Your task to perform on an android device: set an alarm Image 0: 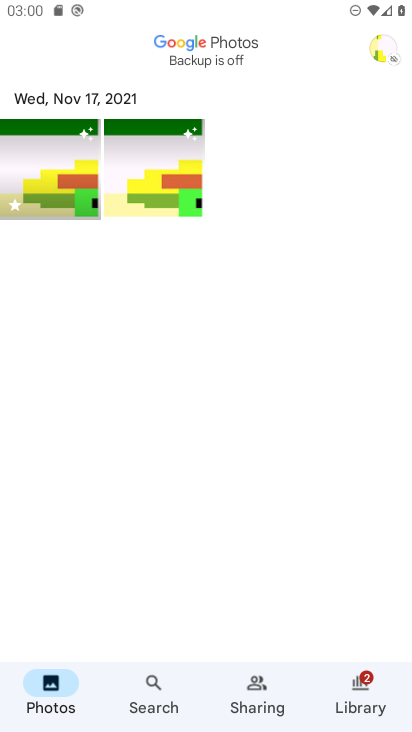
Step 0: press home button
Your task to perform on an android device: set an alarm Image 1: 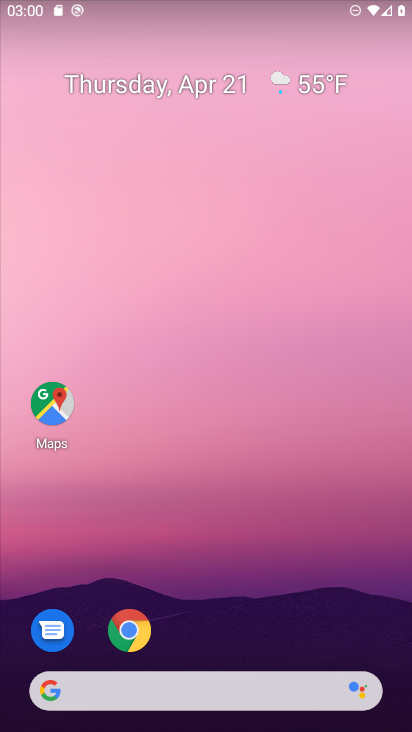
Step 1: drag from (274, 595) to (277, 131)
Your task to perform on an android device: set an alarm Image 2: 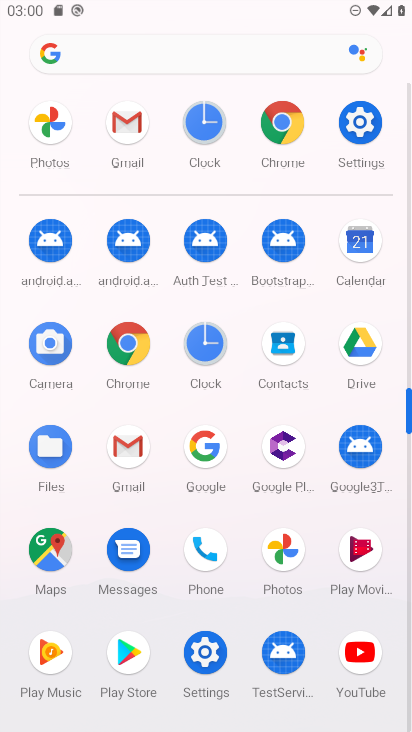
Step 2: click (203, 164)
Your task to perform on an android device: set an alarm Image 3: 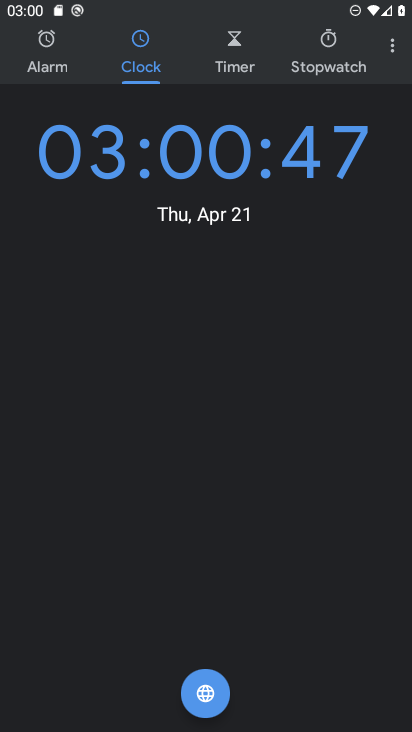
Step 3: click (52, 49)
Your task to perform on an android device: set an alarm Image 4: 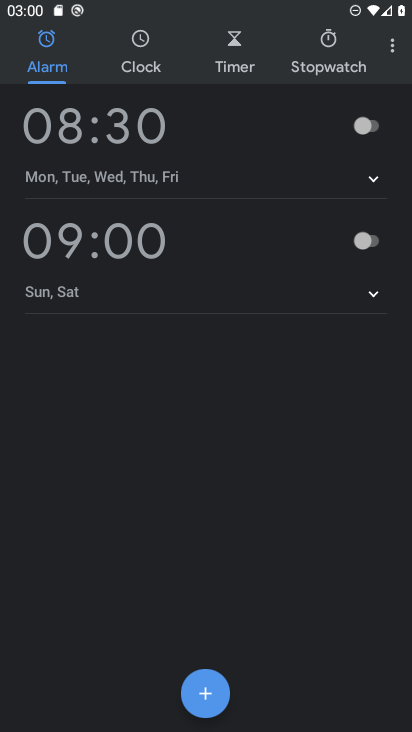
Step 4: click (366, 125)
Your task to perform on an android device: set an alarm Image 5: 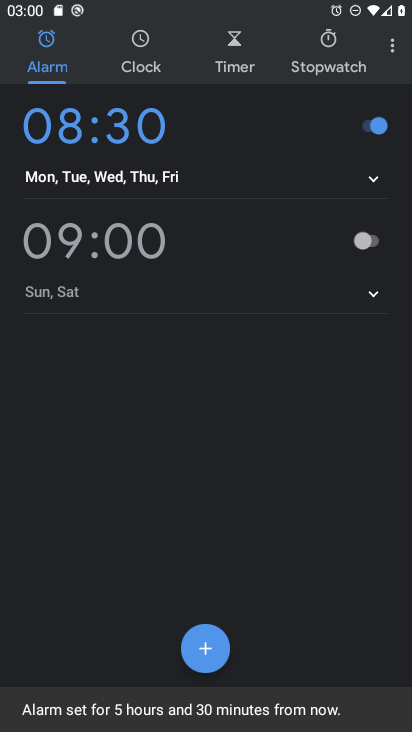
Step 5: task complete